Your task to perform on an android device: Open Google Image 0: 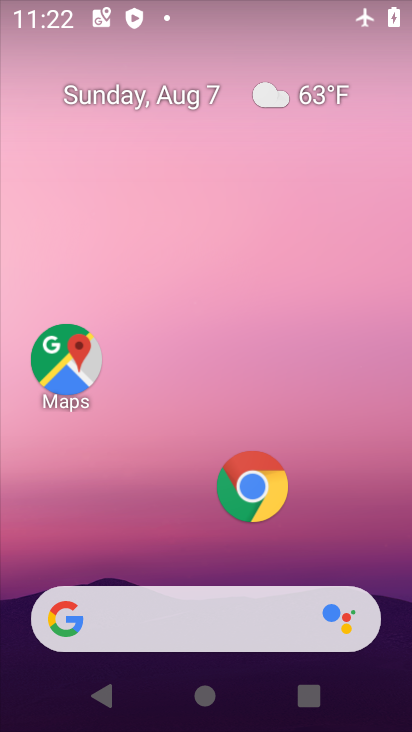
Step 0: click (298, 687)
Your task to perform on an android device: Open Google Image 1: 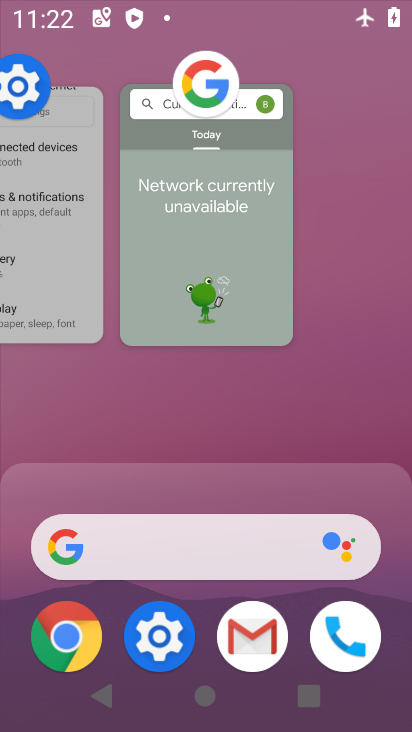
Step 1: drag from (268, 683) to (344, 146)
Your task to perform on an android device: Open Google Image 2: 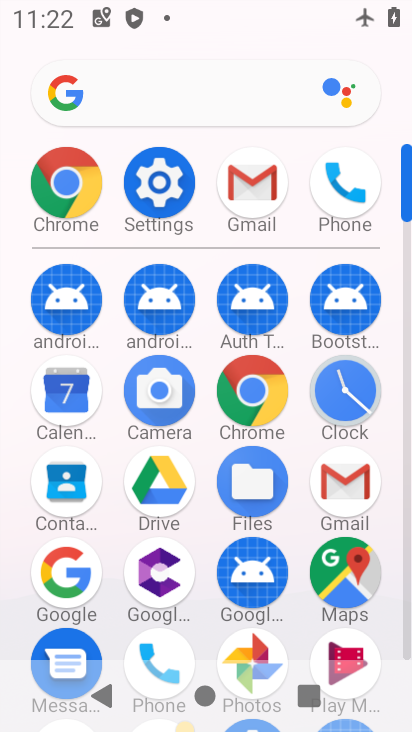
Step 2: click (36, 585)
Your task to perform on an android device: Open Google Image 3: 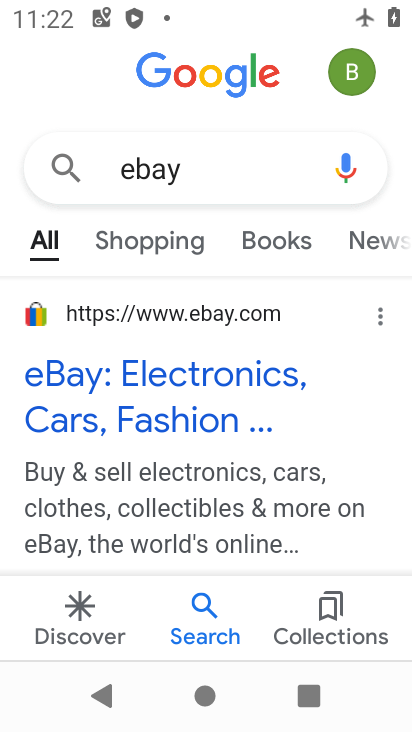
Step 3: task complete